Your task to perform on an android device: Go to eBay Image 0: 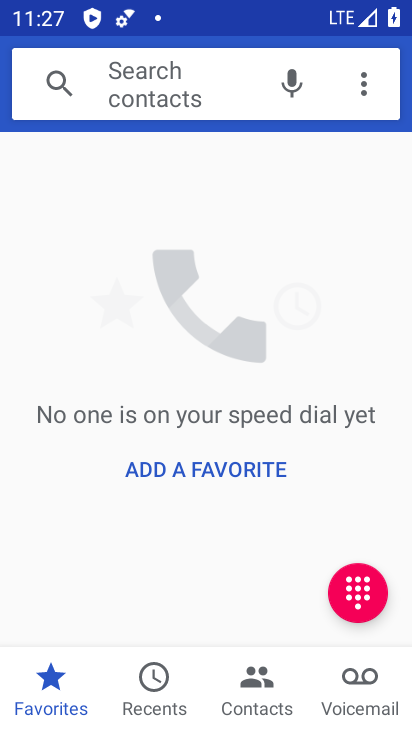
Step 0: press back button
Your task to perform on an android device: Go to eBay Image 1: 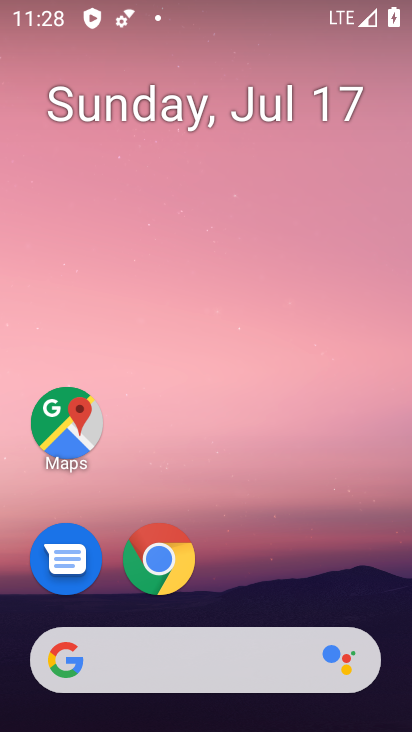
Step 1: click (168, 553)
Your task to perform on an android device: Go to eBay Image 2: 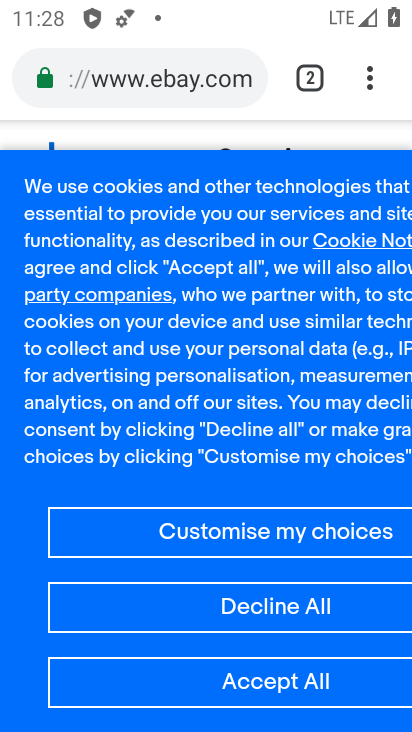
Step 2: task complete